Your task to perform on an android device: Search for Mexican restaurants on Maps Image 0: 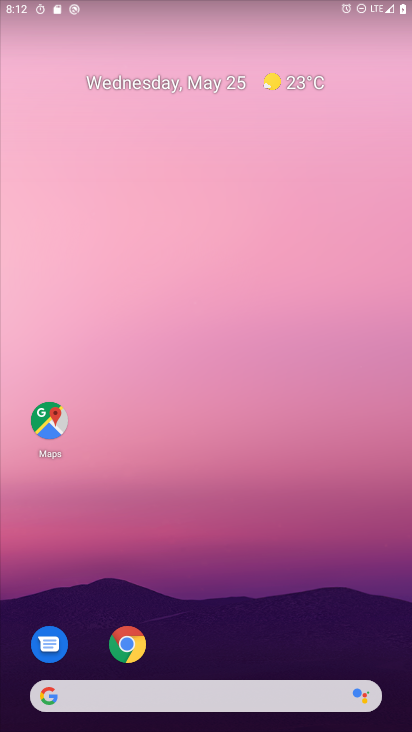
Step 0: drag from (366, 634) to (324, 31)
Your task to perform on an android device: Search for Mexican restaurants on Maps Image 1: 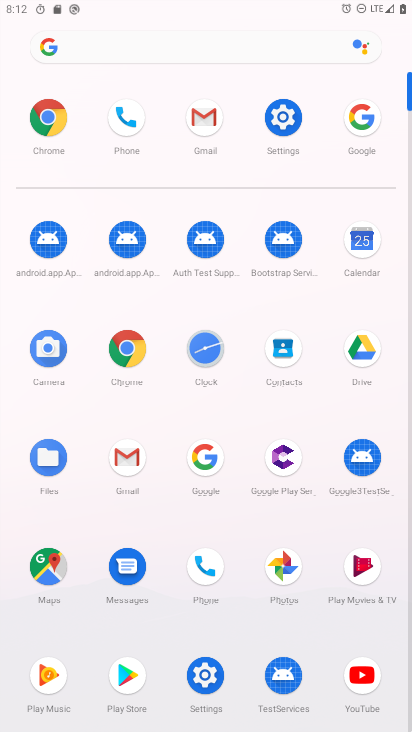
Step 1: click (52, 575)
Your task to perform on an android device: Search for Mexican restaurants on Maps Image 2: 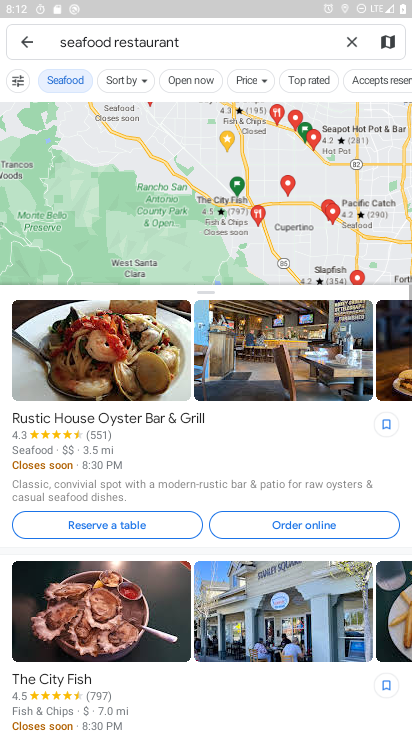
Step 2: click (355, 42)
Your task to perform on an android device: Search for Mexican restaurants on Maps Image 3: 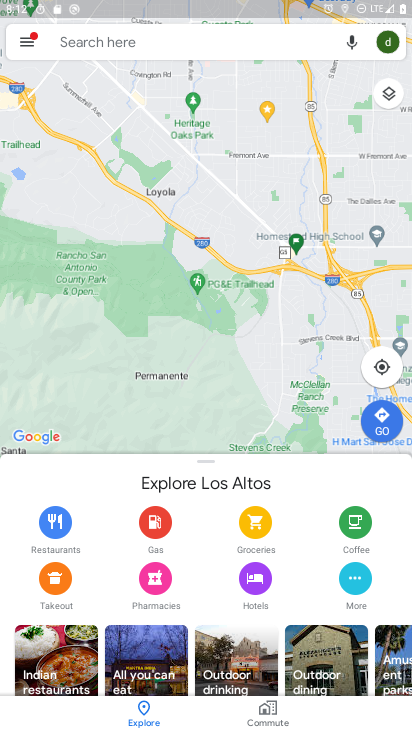
Step 3: click (114, 42)
Your task to perform on an android device: Search for Mexican restaurants on Maps Image 4: 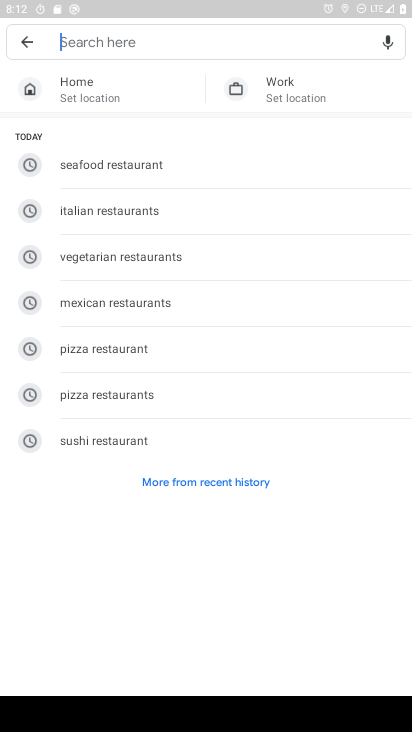
Step 4: click (142, 310)
Your task to perform on an android device: Search for Mexican restaurants on Maps Image 5: 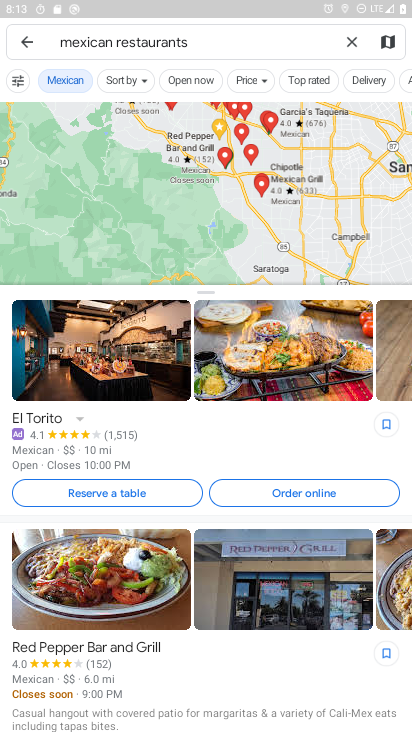
Step 5: task complete